Your task to perform on an android device: Search for Mexican restaurants on Maps Image 0: 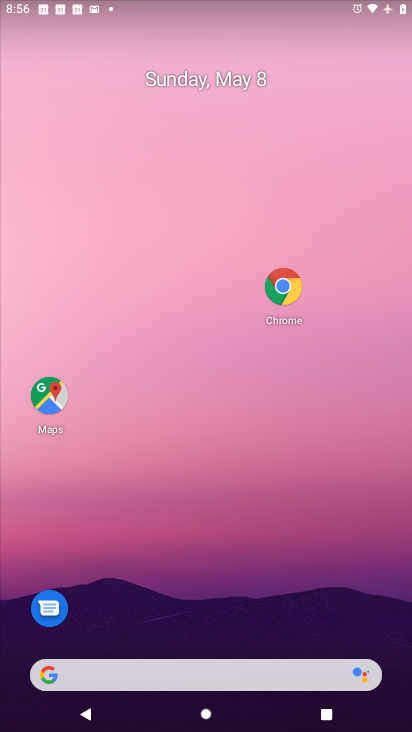
Step 0: drag from (204, 666) to (298, 194)
Your task to perform on an android device: Search for Mexican restaurants on Maps Image 1: 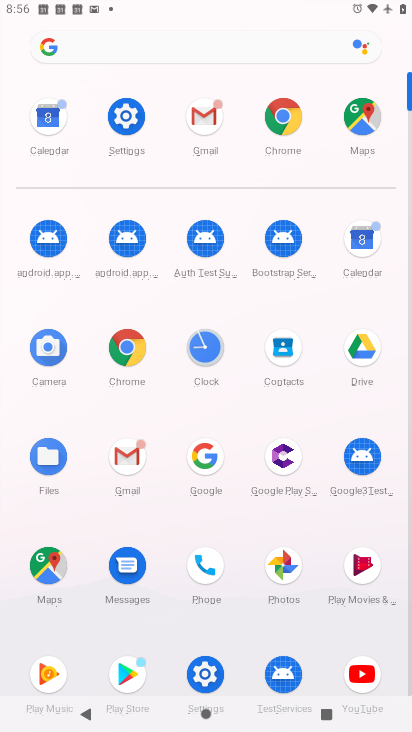
Step 1: click (357, 125)
Your task to perform on an android device: Search for Mexican restaurants on Maps Image 2: 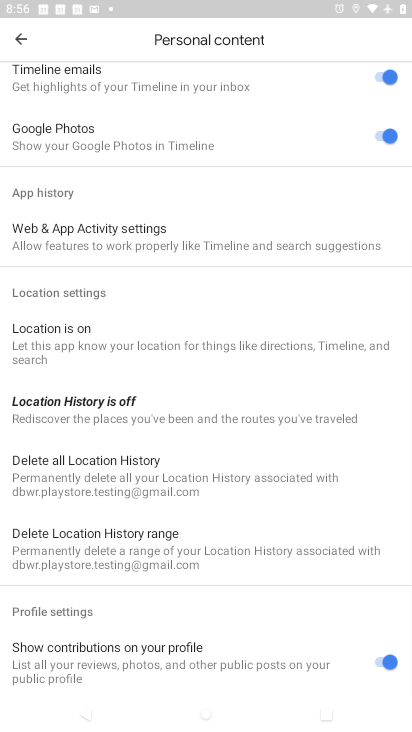
Step 2: click (16, 39)
Your task to perform on an android device: Search for Mexican restaurants on Maps Image 3: 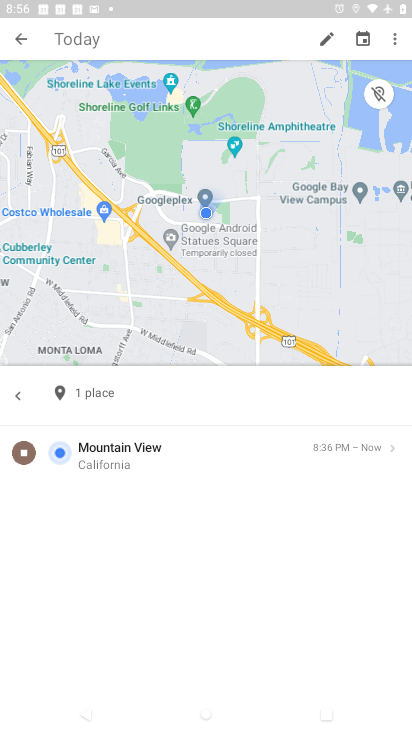
Step 3: click (18, 42)
Your task to perform on an android device: Search for Mexican restaurants on Maps Image 4: 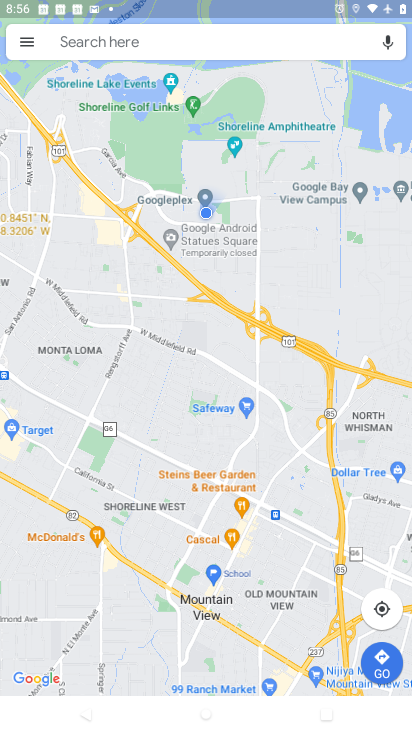
Step 4: click (122, 44)
Your task to perform on an android device: Search for Mexican restaurants on Maps Image 5: 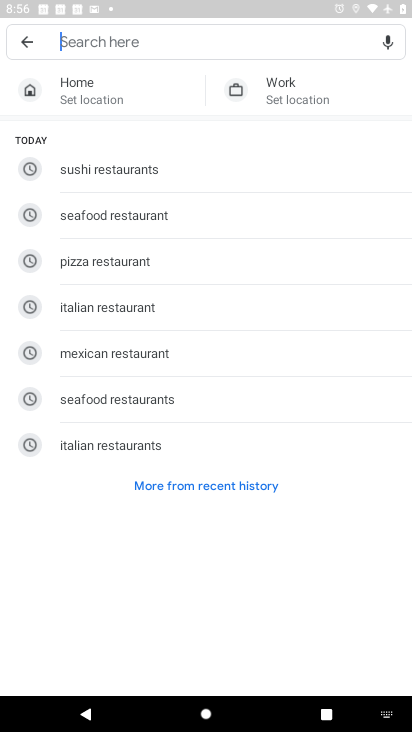
Step 5: click (86, 358)
Your task to perform on an android device: Search for Mexican restaurants on Maps Image 6: 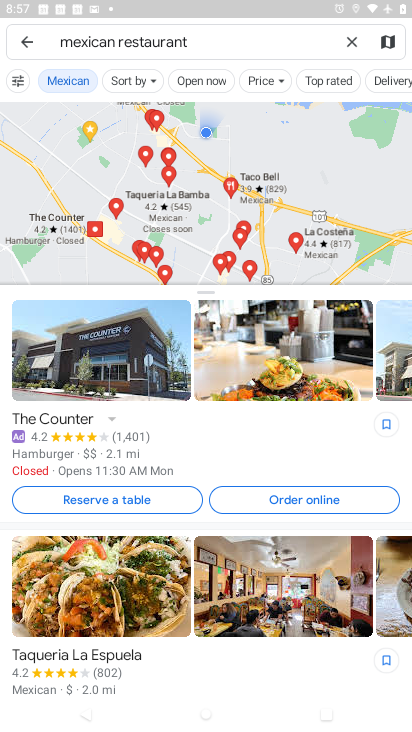
Step 6: task complete